Your task to perform on an android device: Open network settings Image 0: 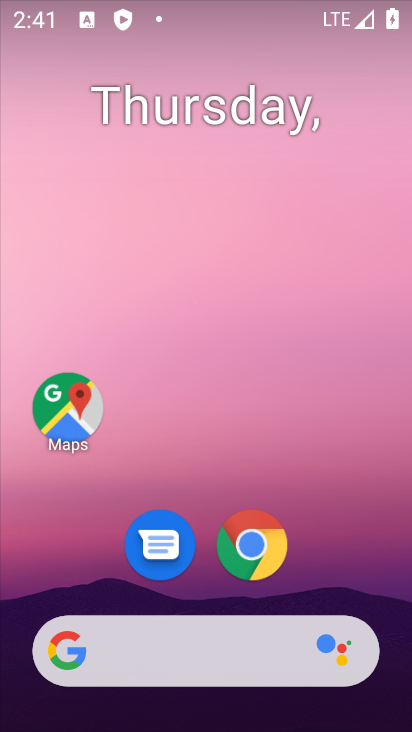
Step 0: drag from (320, 605) to (251, 1)
Your task to perform on an android device: Open network settings Image 1: 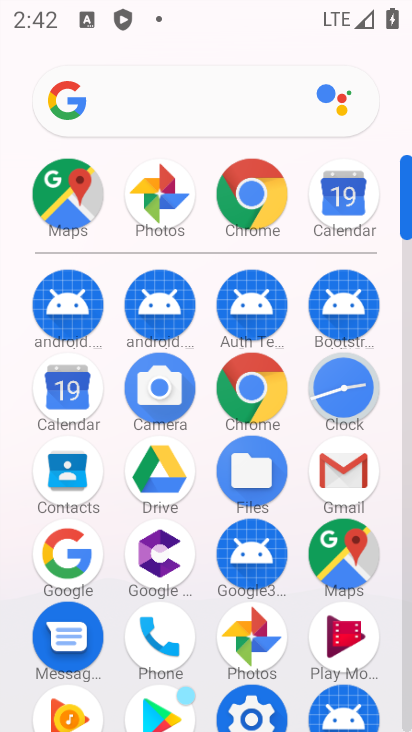
Step 1: click (271, 708)
Your task to perform on an android device: Open network settings Image 2: 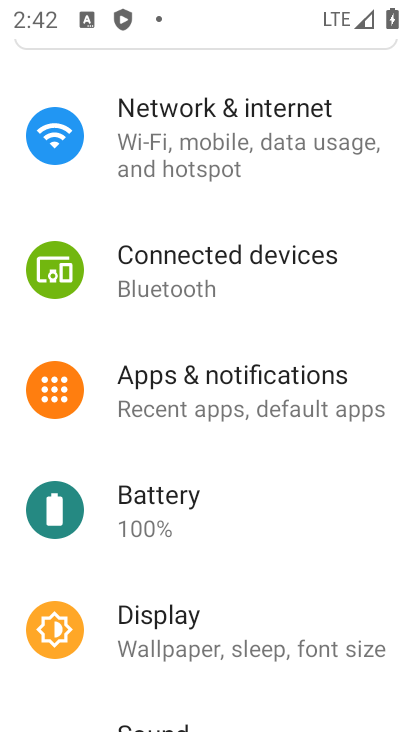
Step 2: click (278, 149)
Your task to perform on an android device: Open network settings Image 3: 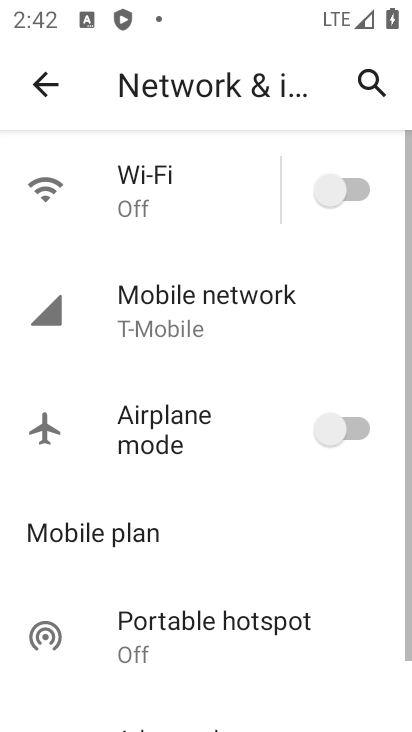
Step 3: task complete